Your task to perform on an android device: Open settings Image 0: 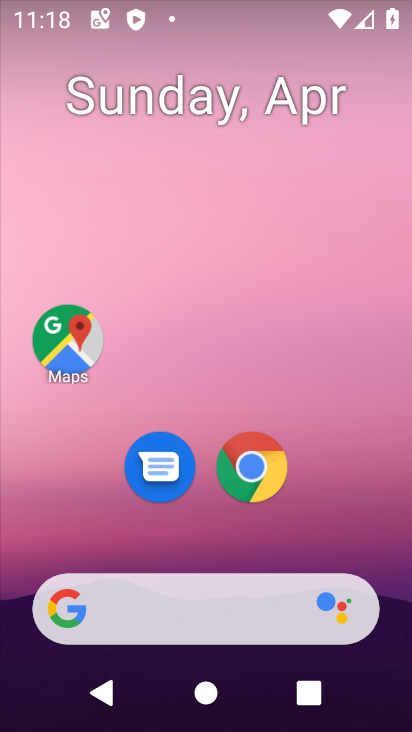
Step 0: click (261, 93)
Your task to perform on an android device: Open settings Image 1: 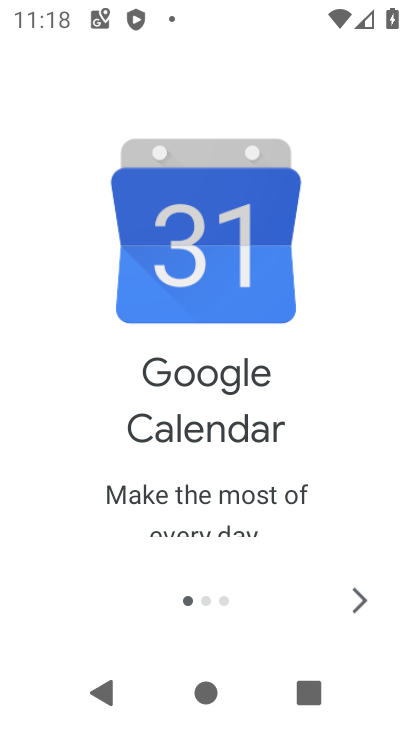
Step 1: drag from (240, 475) to (365, 80)
Your task to perform on an android device: Open settings Image 2: 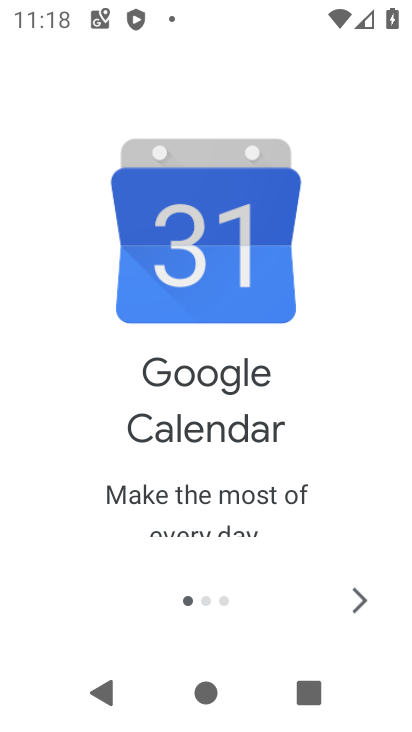
Step 2: click (353, 598)
Your task to perform on an android device: Open settings Image 3: 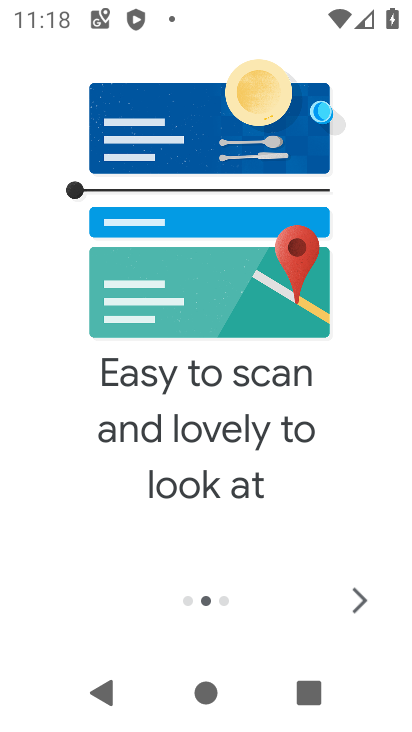
Step 3: click (357, 590)
Your task to perform on an android device: Open settings Image 4: 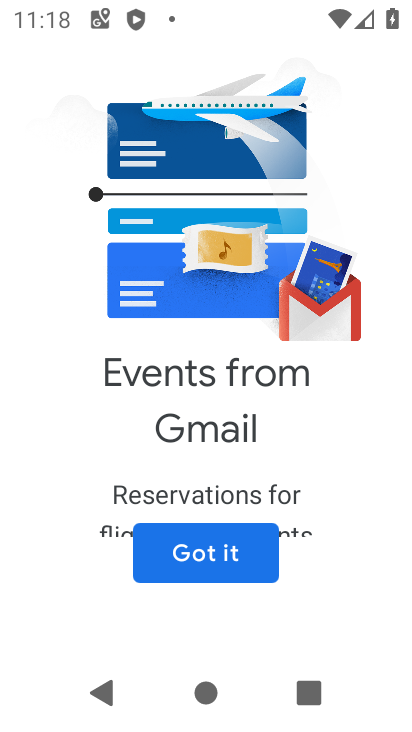
Step 4: click (357, 590)
Your task to perform on an android device: Open settings Image 5: 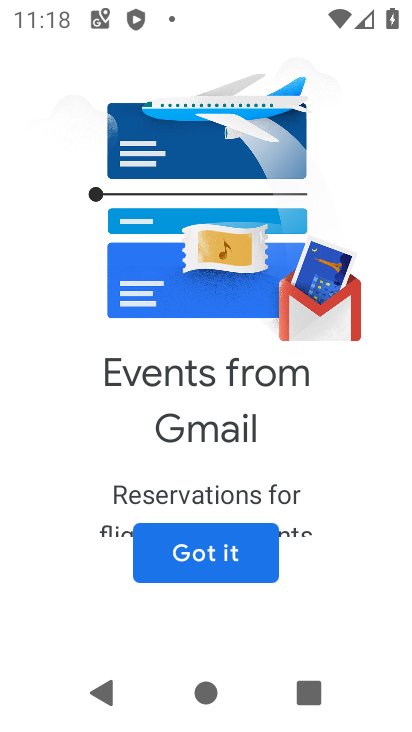
Step 5: press home button
Your task to perform on an android device: Open settings Image 6: 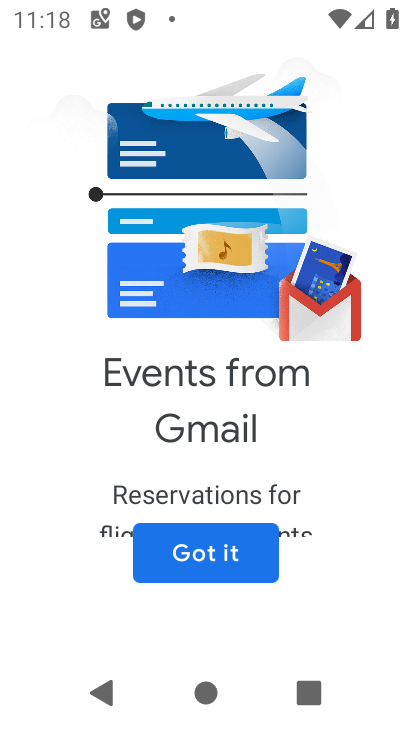
Step 6: press home button
Your task to perform on an android device: Open settings Image 7: 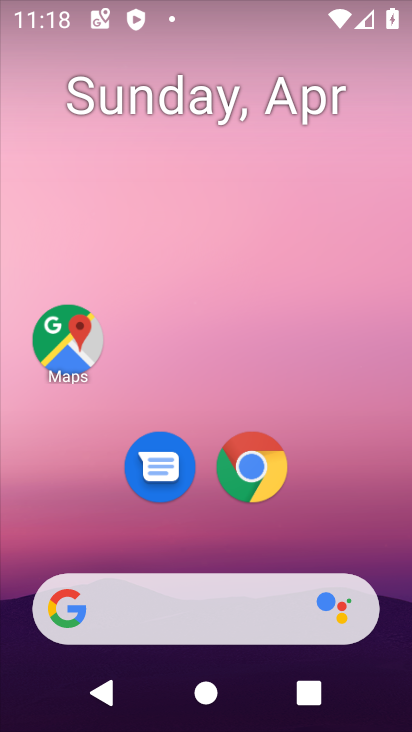
Step 7: drag from (215, 531) to (299, 108)
Your task to perform on an android device: Open settings Image 8: 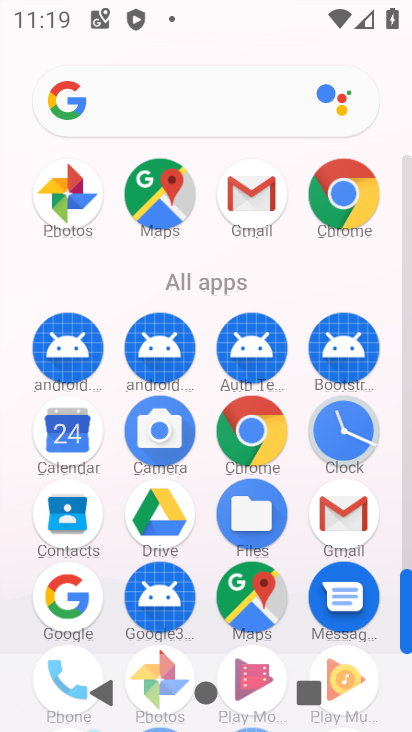
Step 8: drag from (205, 651) to (329, 220)
Your task to perform on an android device: Open settings Image 9: 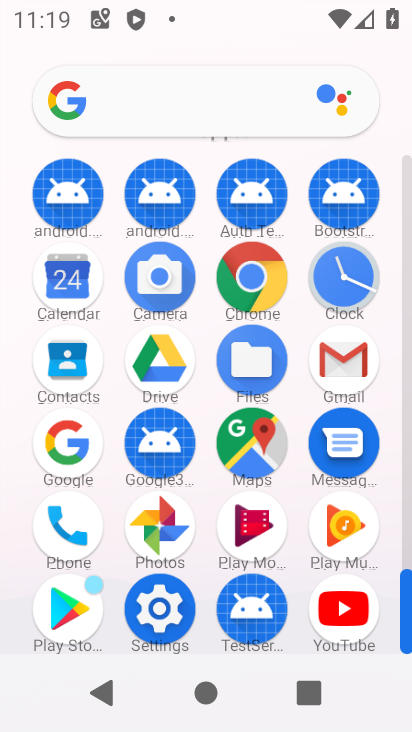
Step 9: drag from (203, 602) to (205, 248)
Your task to perform on an android device: Open settings Image 10: 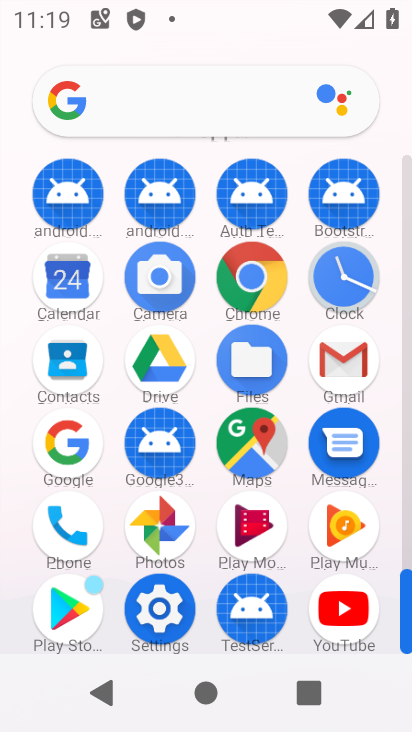
Step 10: click (158, 605)
Your task to perform on an android device: Open settings Image 11: 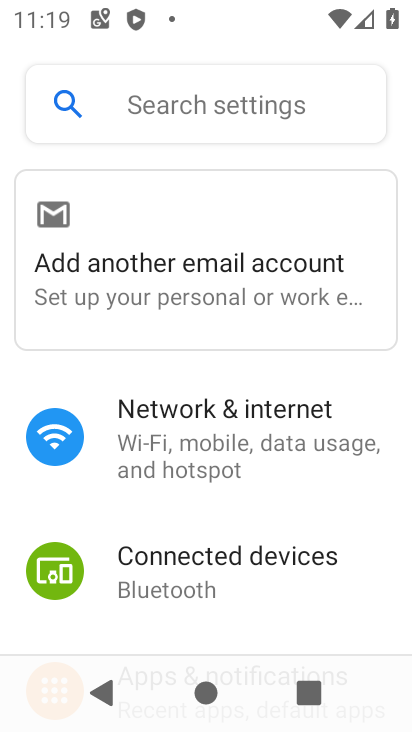
Step 11: task complete